Your task to perform on an android device: open app "DoorDash - Dasher" (install if not already installed) and go to login screen Image 0: 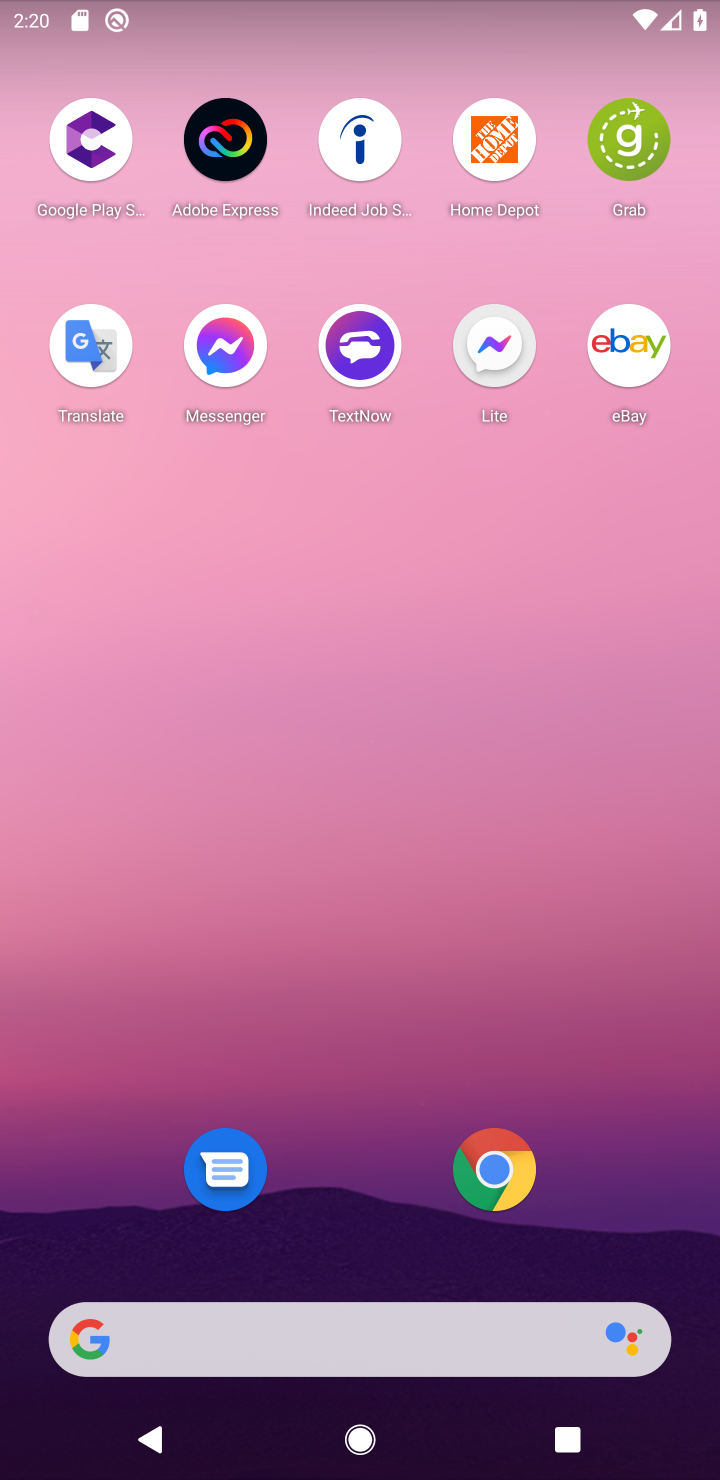
Step 0: drag from (385, 1294) to (473, 29)
Your task to perform on an android device: open app "DoorDash - Dasher" (install if not already installed) and go to login screen Image 1: 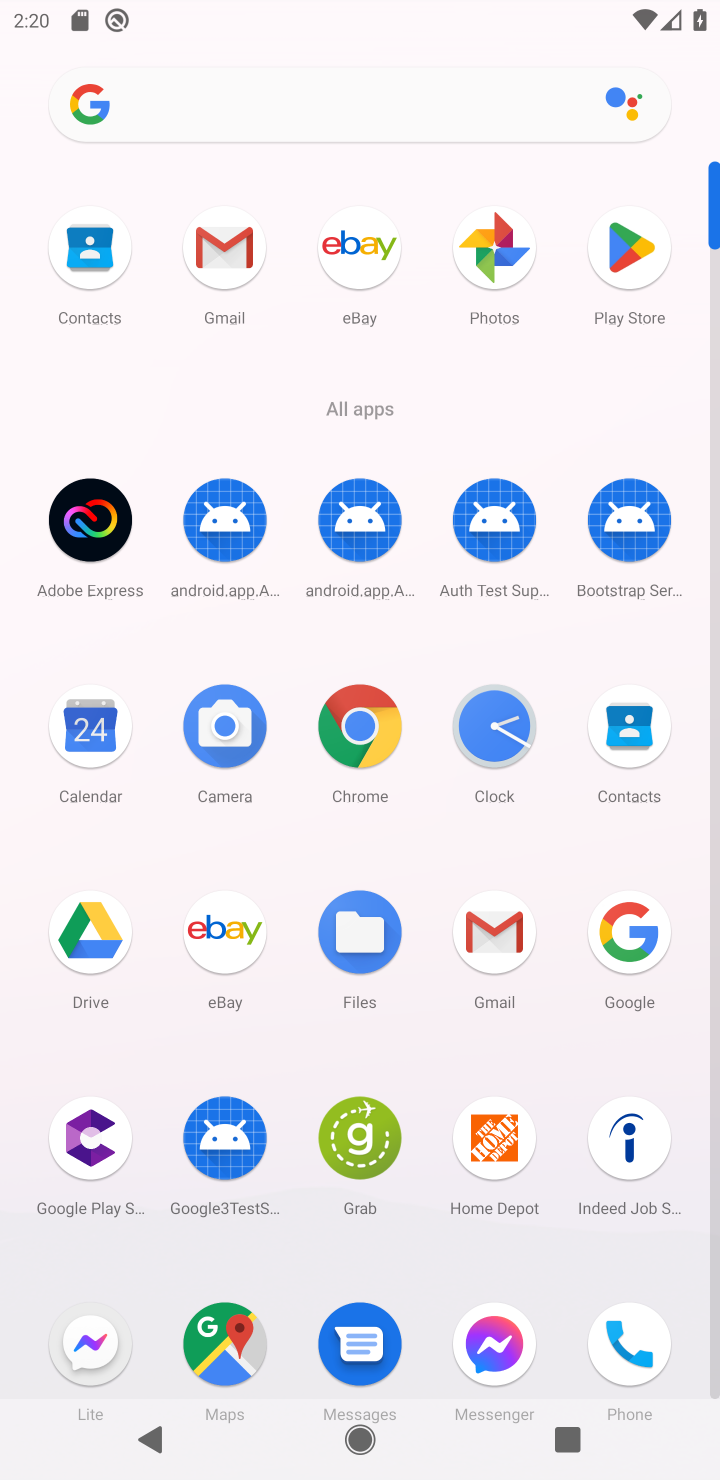
Step 1: click (619, 260)
Your task to perform on an android device: open app "DoorDash - Dasher" (install if not already installed) and go to login screen Image 2: 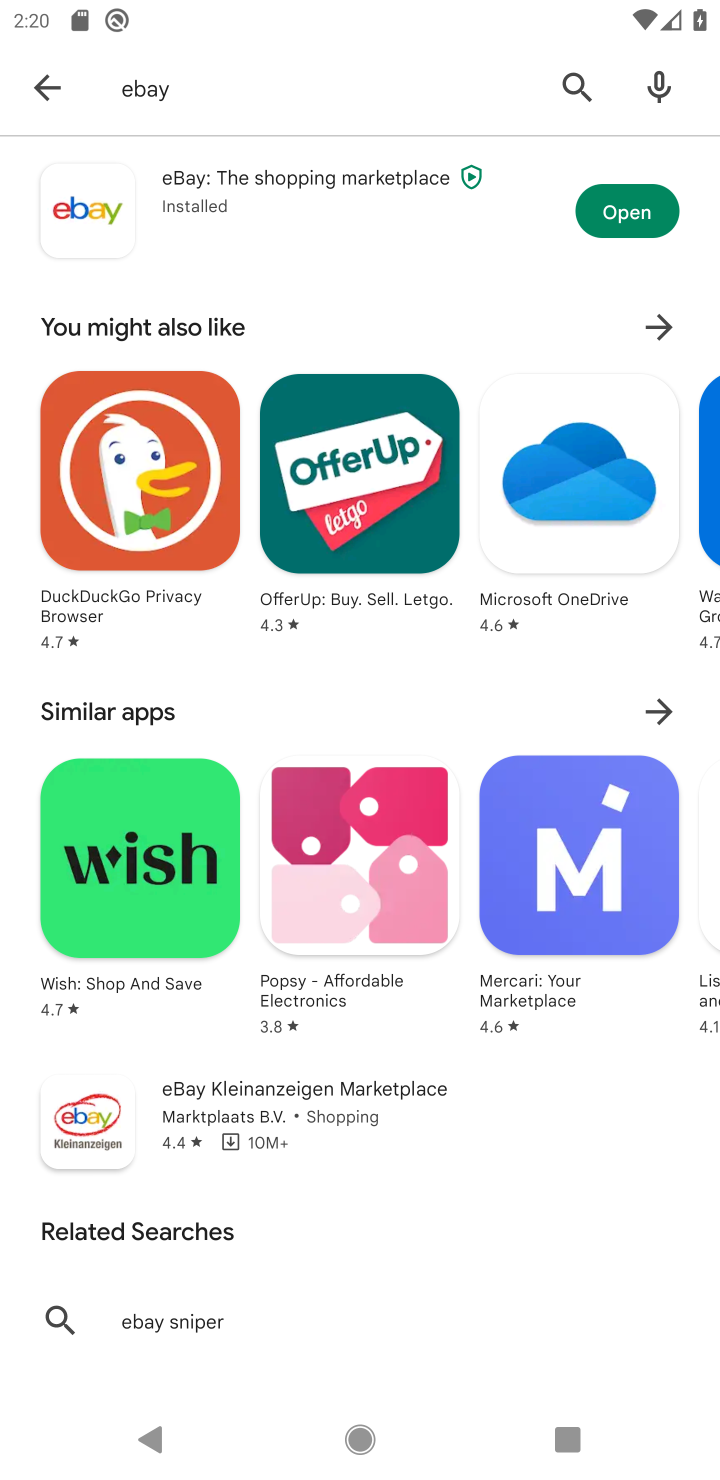
Step 2: click (79, 78)
Your task to perform on an android device: open app "DoorDash - Dasher" (install if not already installed) and go to login screen Image 3: 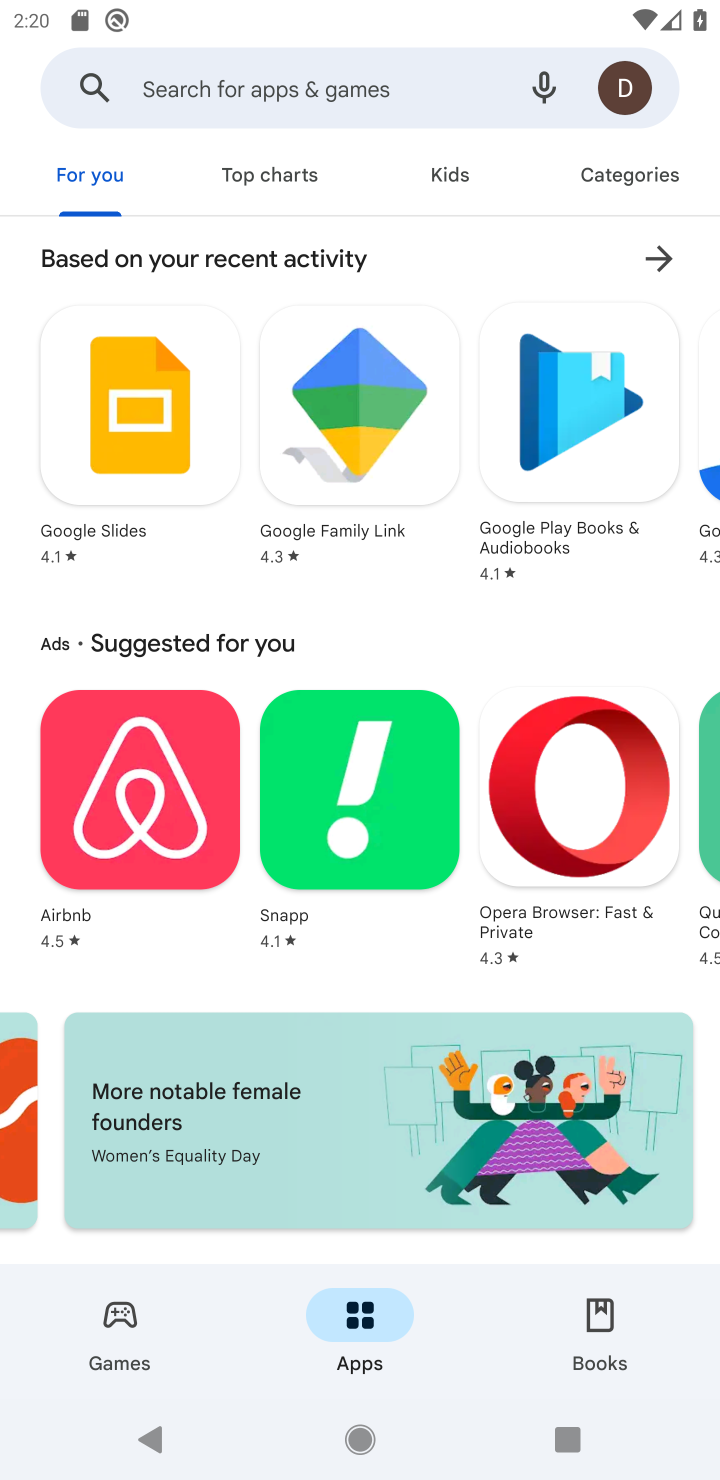
Step 3: click (254, 74)
Your task to perform on an android device: open app "DoorDash - Dasher" (install if not already installed) and go to login screen Image 4: 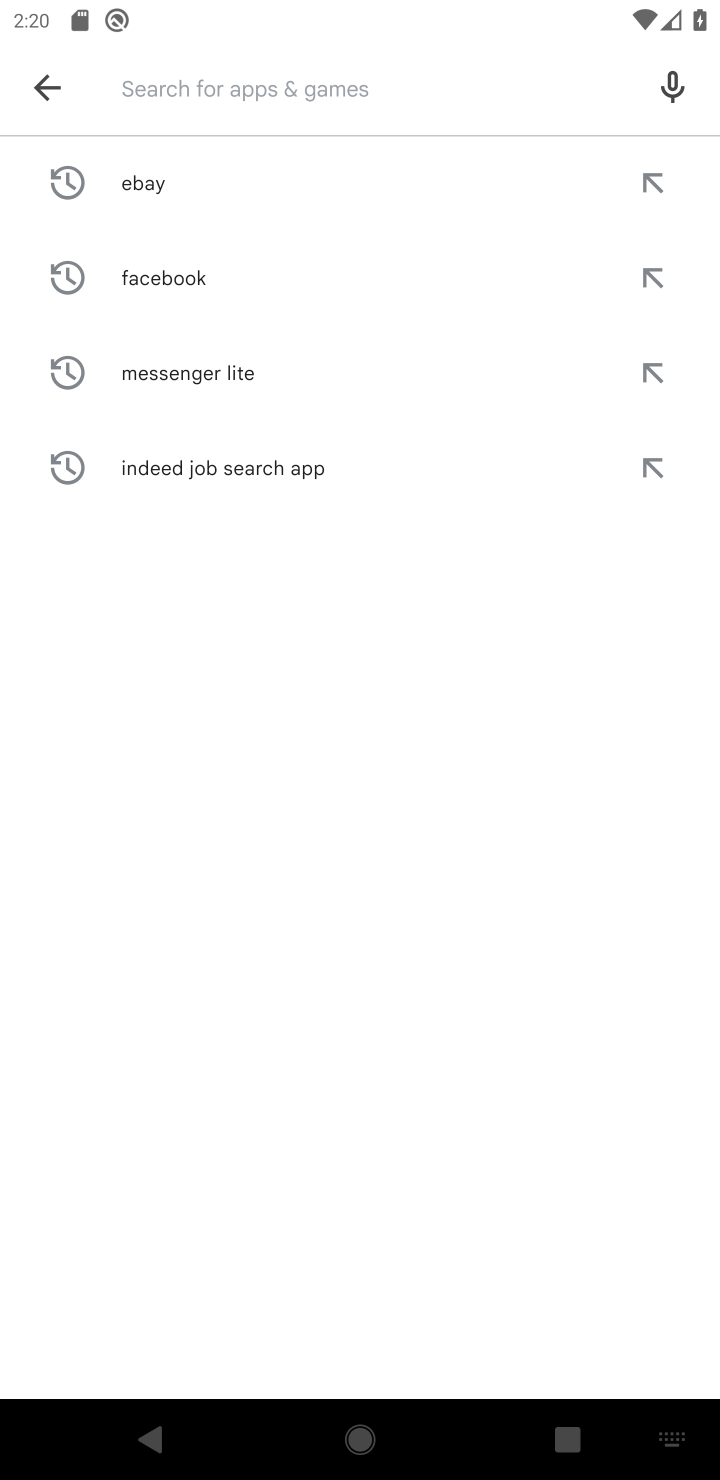
Step 4: type "DoorDash"
Your task to perform on an android device: open app "DoorDash - Dasher" (install if not already installed) and go to login screen Image 5: 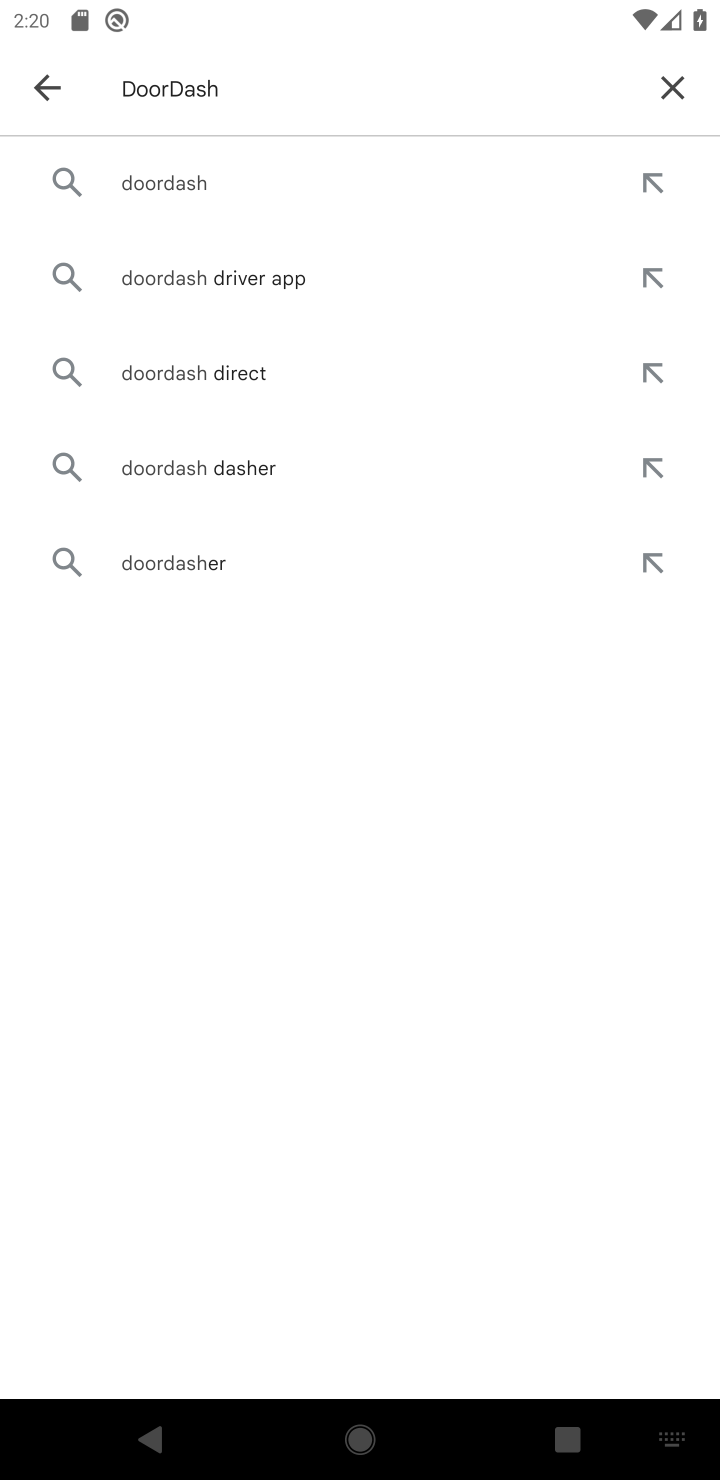
Step 5: click (216, 181)
Your task to perform on an android device: open app "DoorDash - Dasher" (install if not already installed) and go to login screen Image 6: 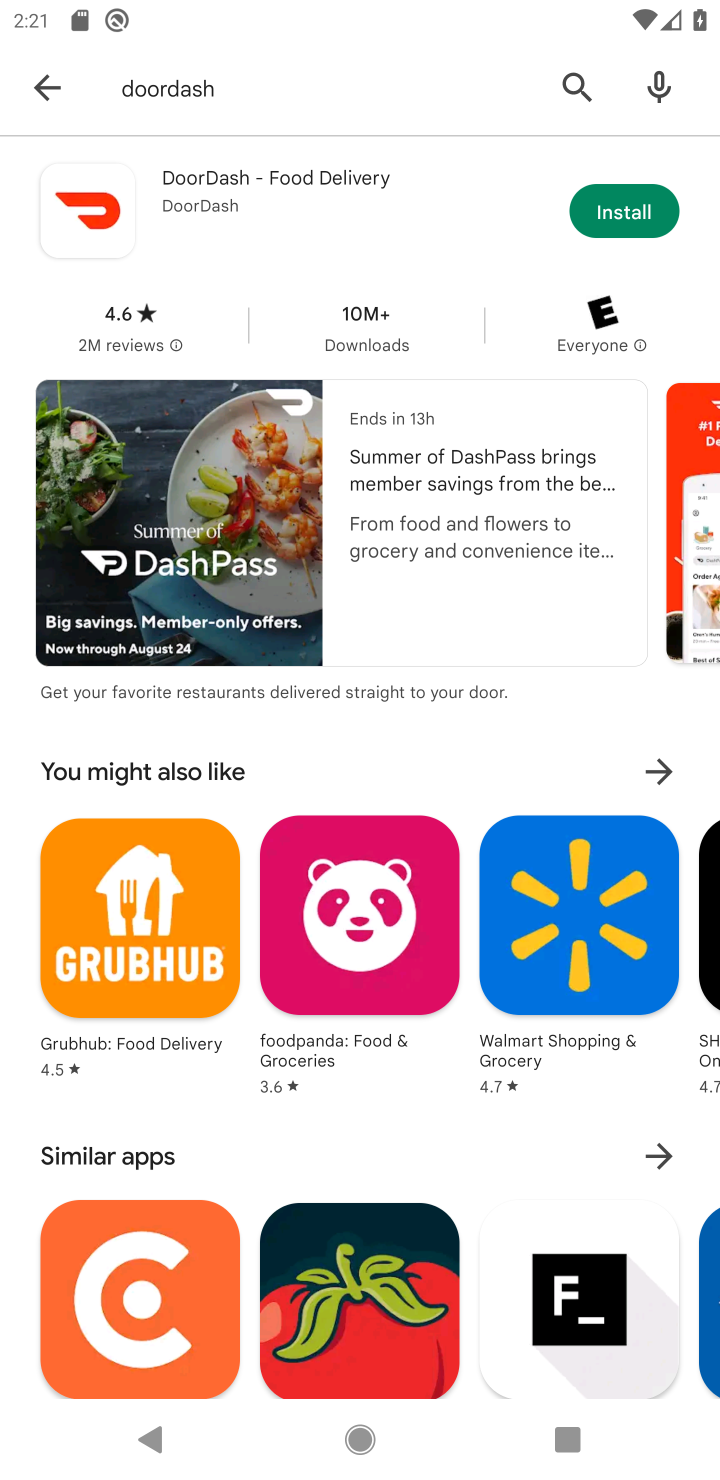
Step 6: click (636, 214)
Your task to perform on an android device: open app "DoorDash - Dasher" (install if not already installed) and go to login screen Image 7: 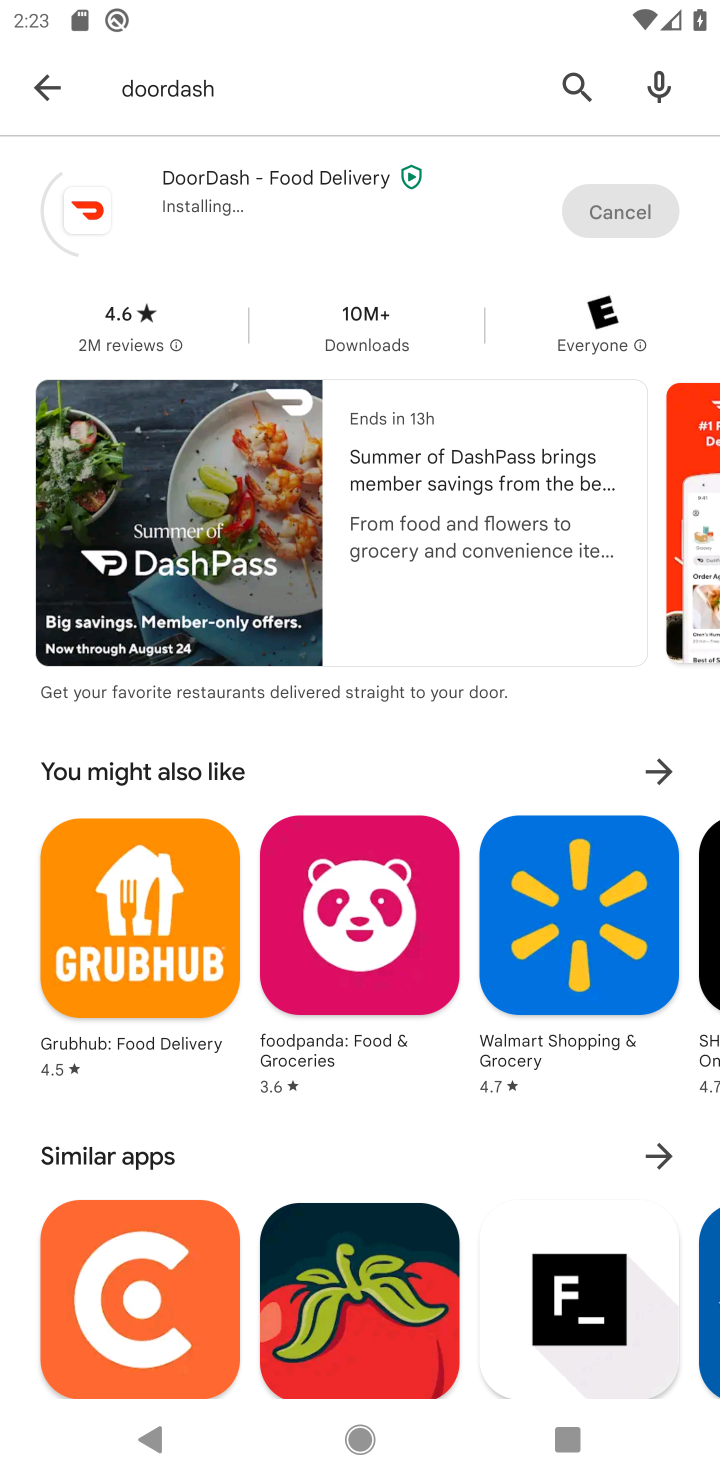
Step 7: task complete